Your task to perform on an android device: Go to wifi settings Image 0: 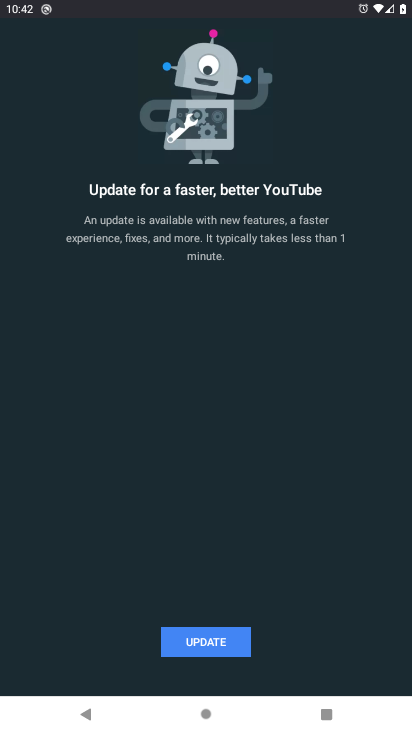
Step 0: press home button
Your task to perform on an android device: Go to wifi settings Image 1: 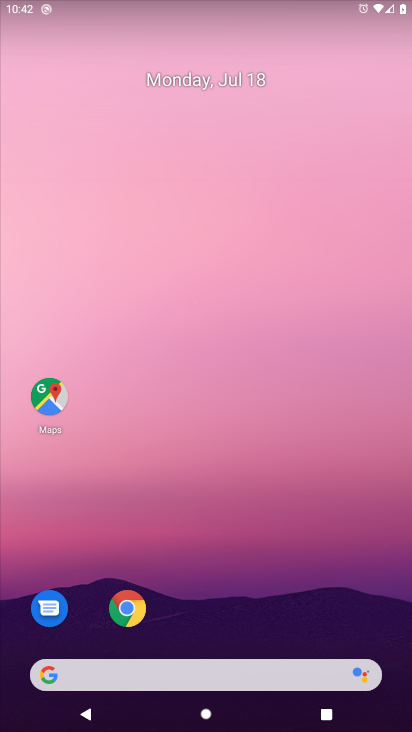
Step 1: drag from (201, 342) to (239, 16)
Your task to perform on an android device: Go to wifi settings Image 2: 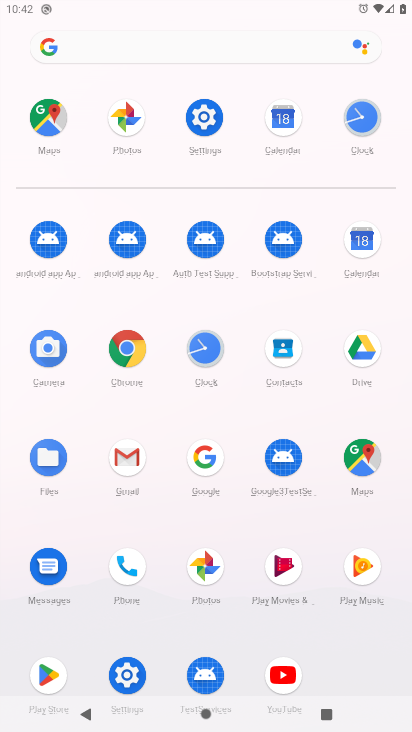
Step 2: click (119, 680)
Your task to perform on an android device: Go to wifi settings Image 3: 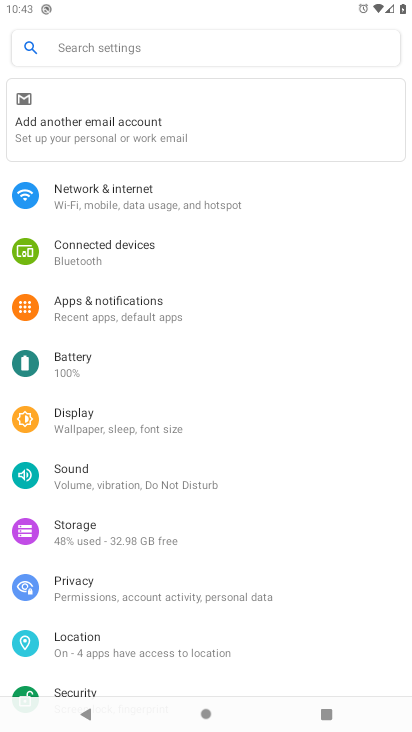
Step 3: click (117, 201)
Your task to perform on an android device: Go to wifi settings Image 4: 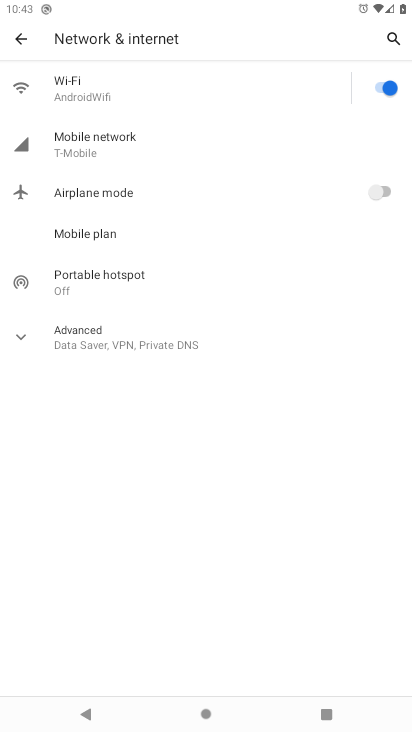
Step 4: click (66, 83)
Your task to perform on an android device: Go to wifi settings Image 5: 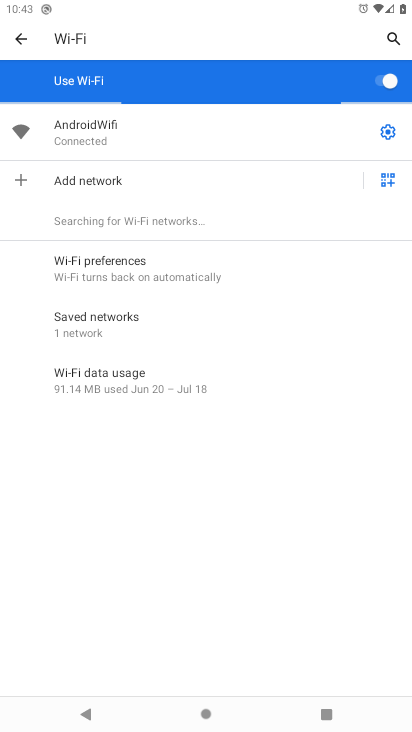
Step 5: task complete